Your task to perform on an android device: Play the last video I watched on Youtube Image 0: 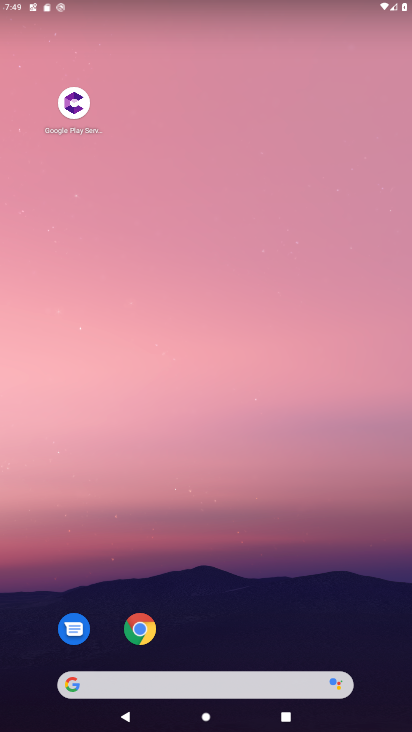
Step 0: drag from (217, 649) to (267, 155)
Your task to perform on an android device: Play the last video I watched on Youtube Image 1: 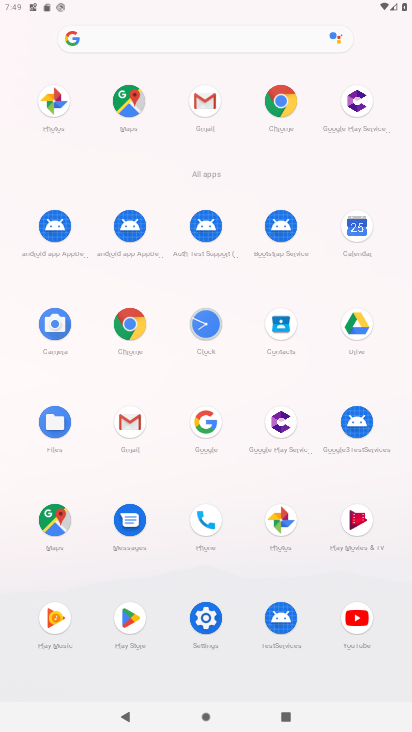
Step 1: click (368, 619)
Your task to perform on an android device: Play the last video I watched on Youtube Image 2: 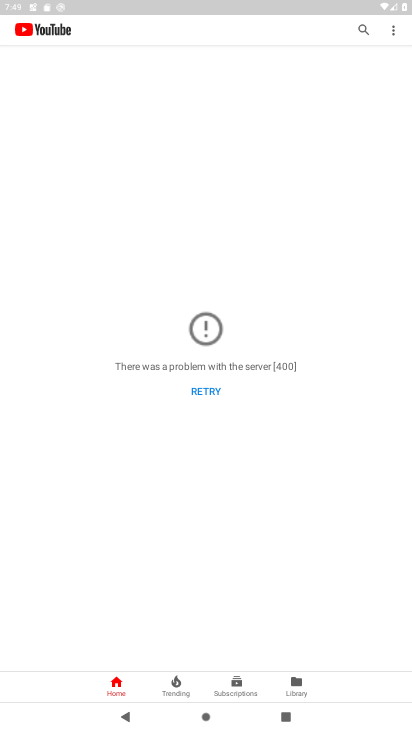
Step 2: click (367, 25)
Your task to perform on an android device: Play the last video I watched on Youtube Image 3: 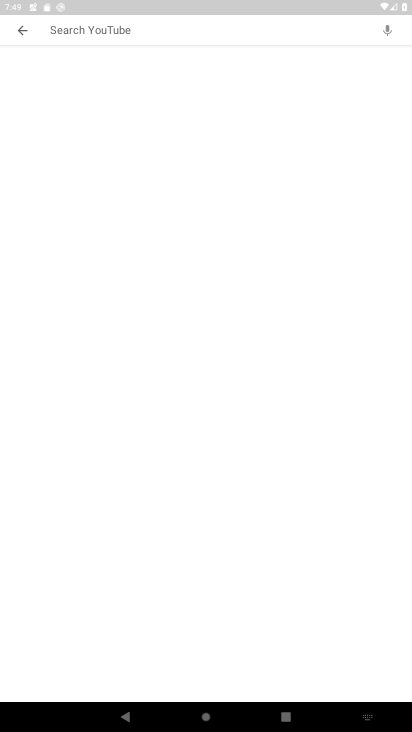
Step 3: click (228, 20)
Your task to perform on an android device: Play the last video I watched on Youtube Image 4: 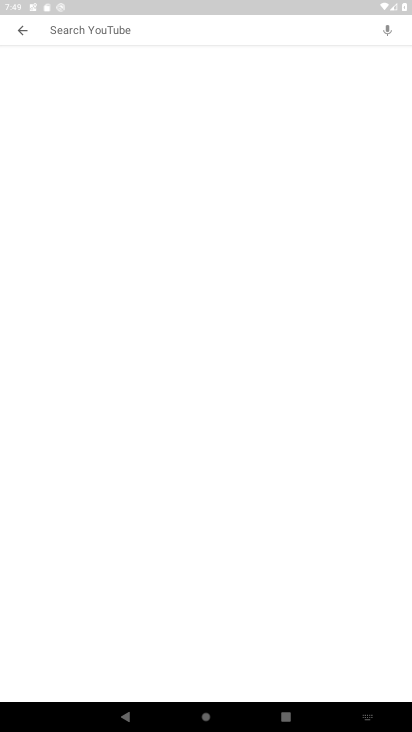
Step 4: type "delhi lobe "
Your task to perform on an android device: Play the last video I watched on Youtube Image 5: 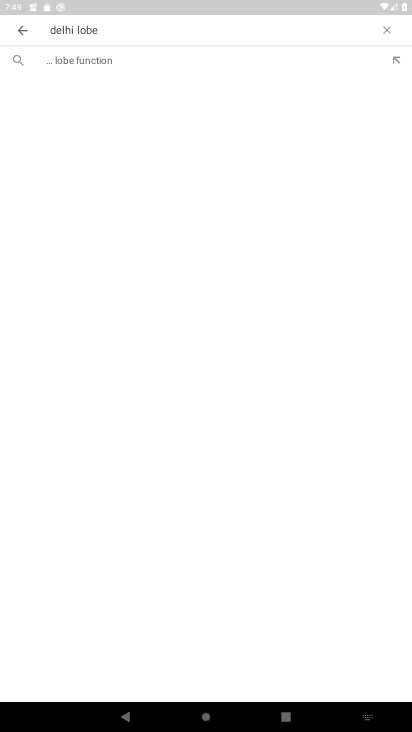
Step 5: click (80, 62)
Your task to perform on an android device: Play the last video I watched on Youtube Image 6: 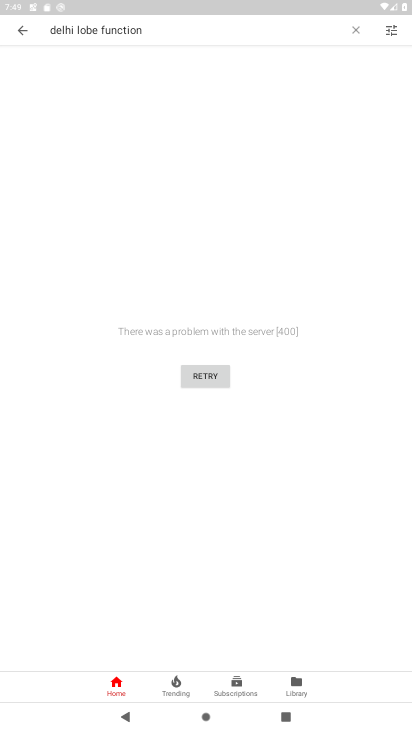
Step 6: task complete